Your task to perform on an android device: toggle notification dots Image 0: 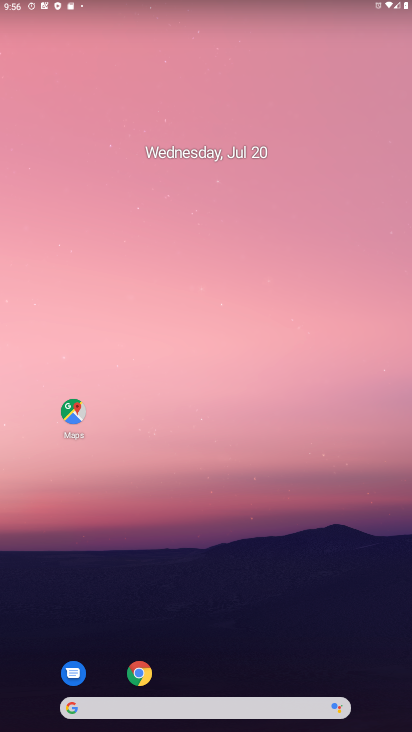
Step 0: drag from (217, 683) to (238, 132)
Your task to perform on an android device: toggle notification dots Image 1: 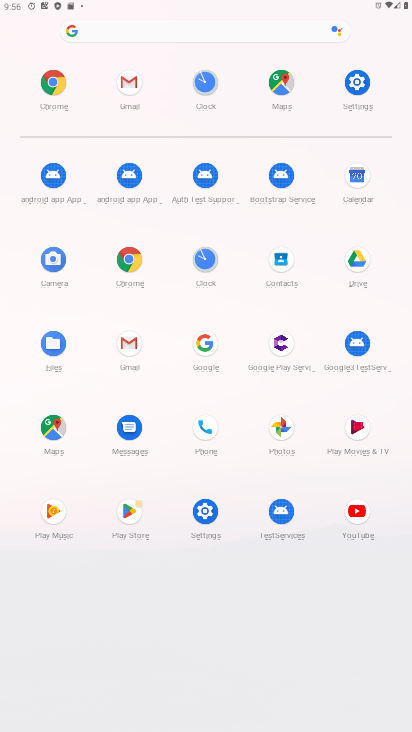
Step 1: click (208, 509)
Your task to perform on an android device: toggle notification dots Image 2: 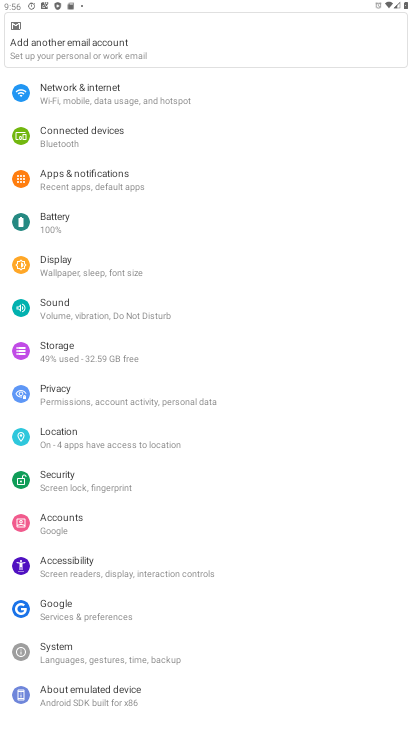
Step 2: click (78, 175)
Your task to perform on an android device: toggle notification dots Image 3: 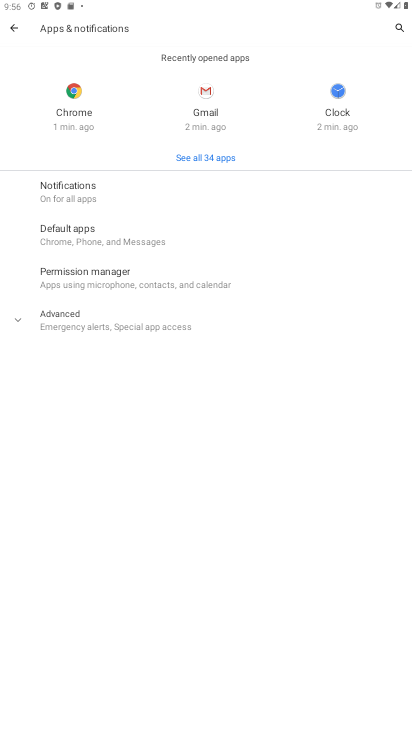
Step 3: click (74, 191)
Your task to perform on an android device: toggle notification dots Image 4: 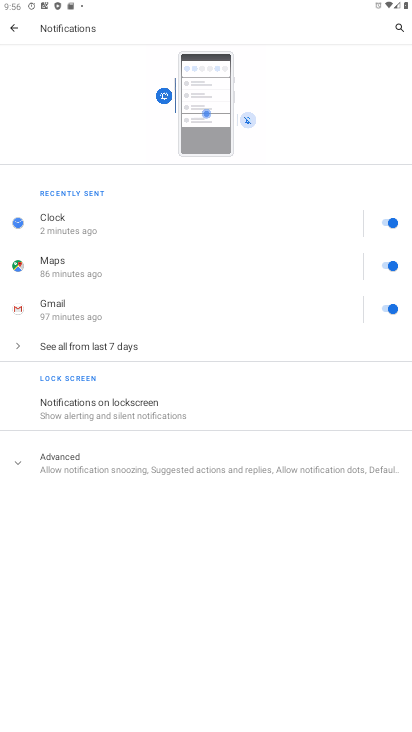
Step 4: click (72, 456)
Your task to perform on an android device: toggle notification dots Image 5: 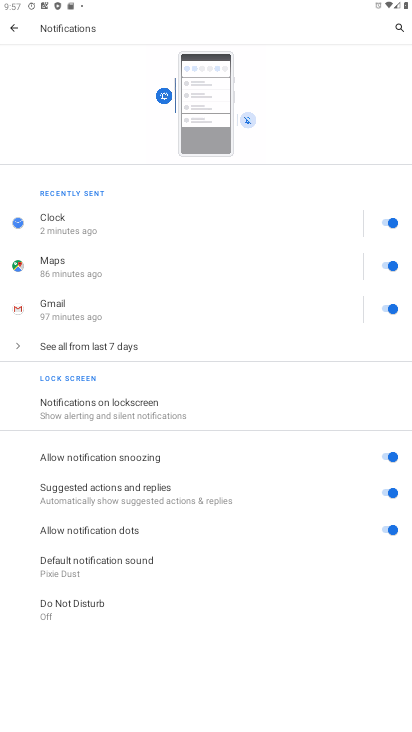
Step 5: task complete